Your task to perform on an android device: turn on translation in the chrome app Image 0: 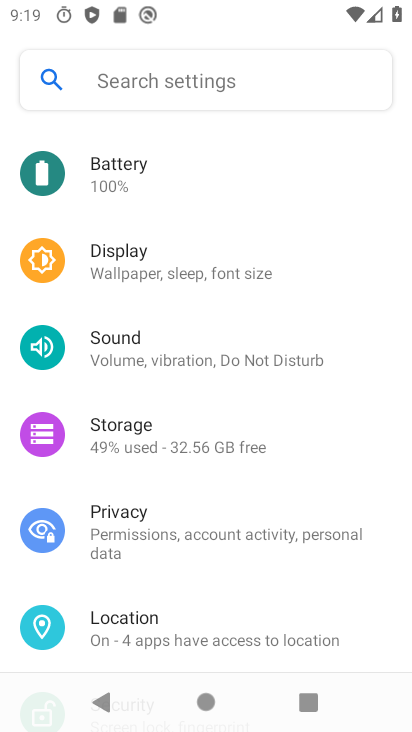
Step 0: drag from (244, 434) to (245, 288)
Your task to perform on an android device: turn on translation in the chrome app Image 1: 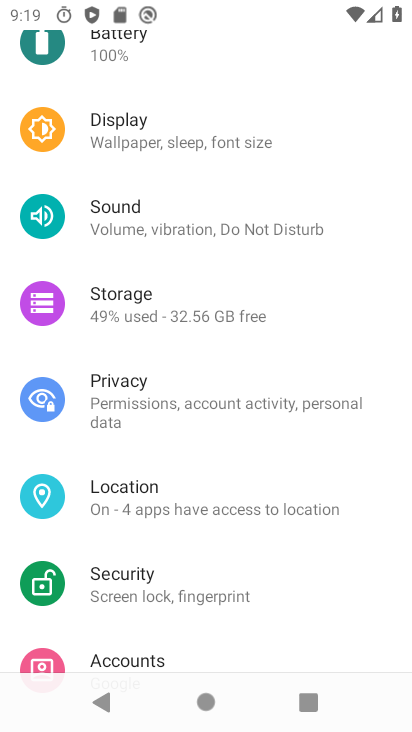
Step 1: press home button
Your task to perform on an android device: turn on translation in the chrome app Image 2: 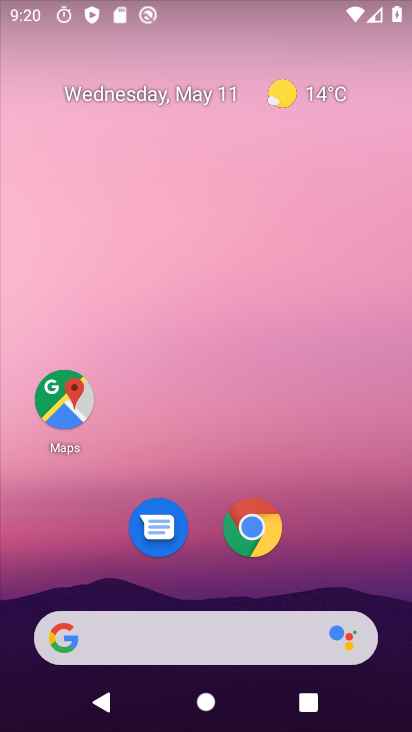
Step 2: drag from (368, 428) to (382, 325)
Your task to perform on an android device: turn on translation in the chrome app Image 3: 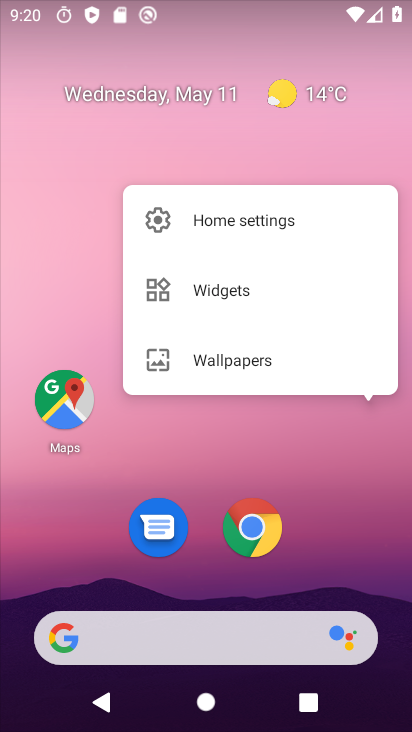
Step 3: click (356, 531)
Your task to perform on an android device: turn on translation in the chrome app Image 4: 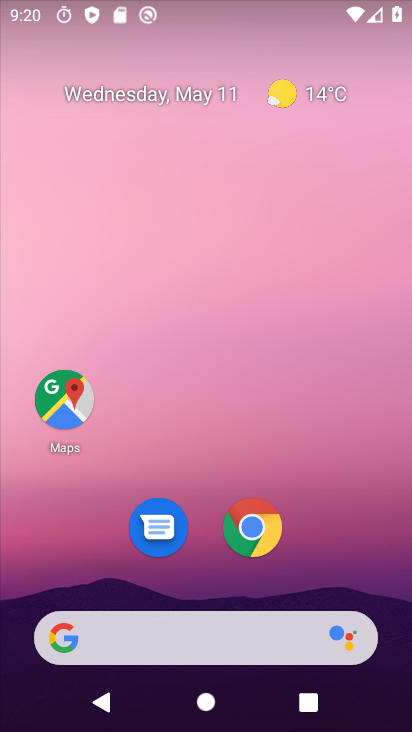
Step 4: click (288, 515)
Your task to perform on an android device: turn on translation in the chrome app Image 5: 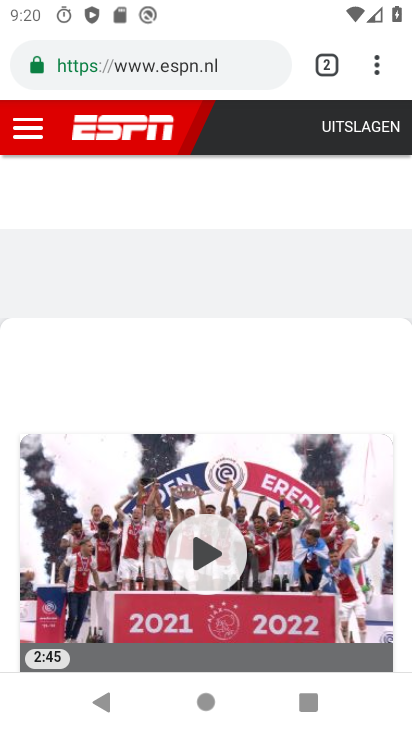
Step 5: click (381, 69)
Your task to perform on an android device: turn on translation in the chrome app Image 6: 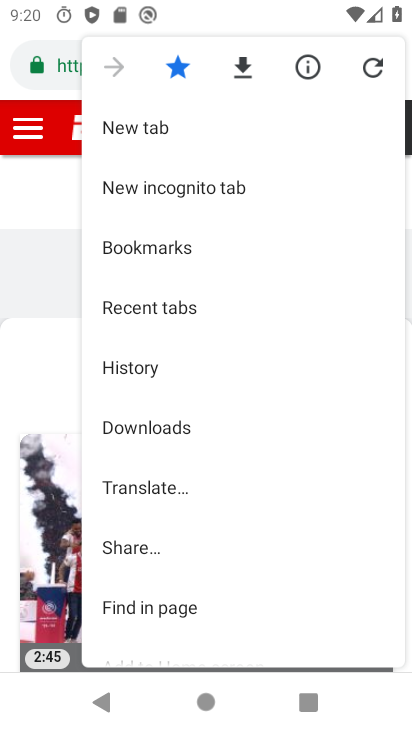
Step 6: click (194, 481)
Your task to perform on an android device: turn on translation in the chrome app Image 7: 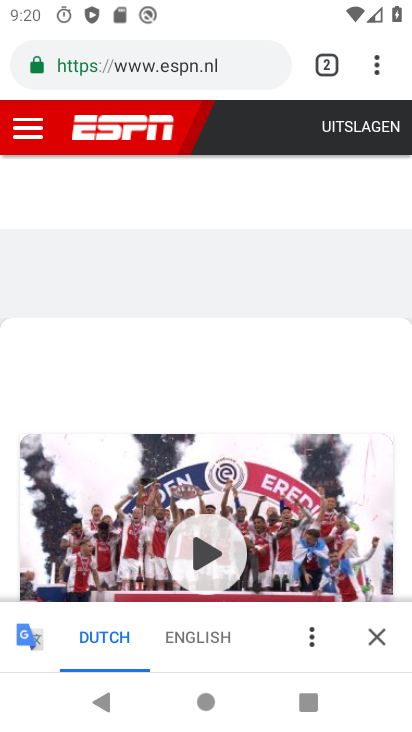
Step 7: click (302, 642)
Your task to perform on an android device: turn on translation in the chrome app Image 8: 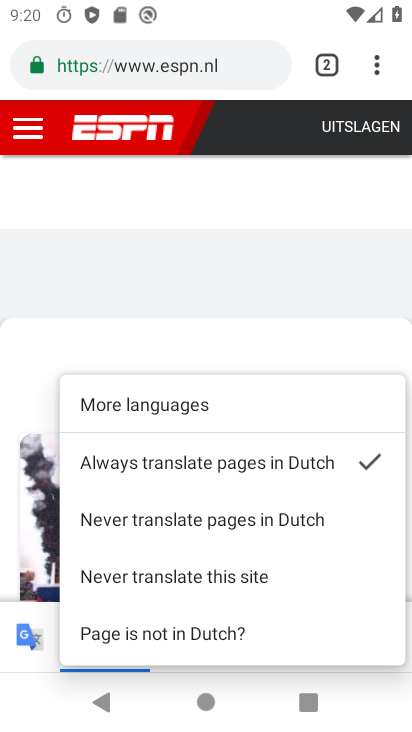
Step 8: task complete